Your task to perform on an android device: turn off data saver in the chrome app Image 0: 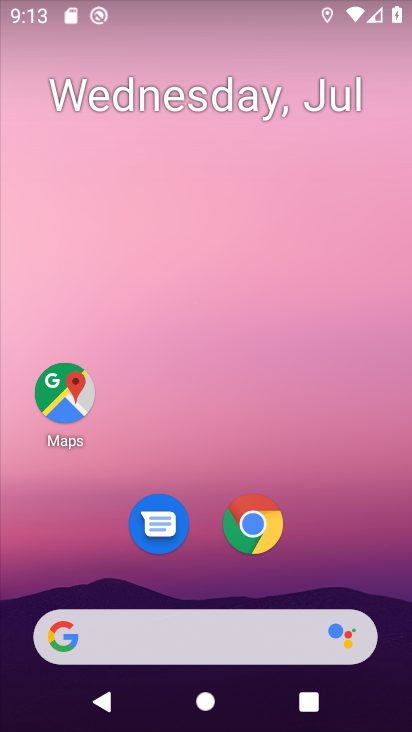
Step 0: click (252, 514)
Your task to perform on an android device: turn off data saver in the chrome app Image 1: 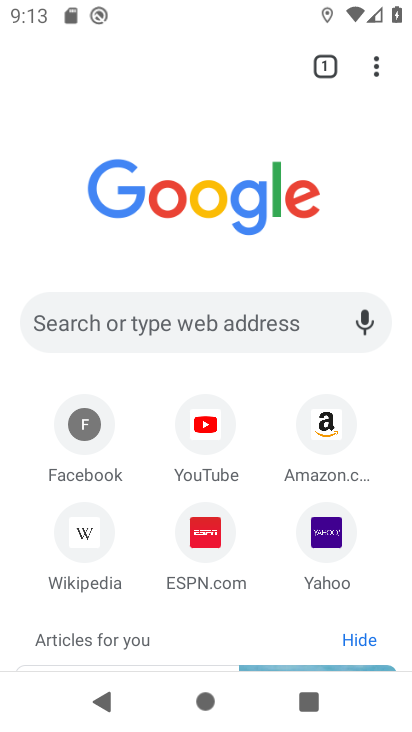
Step 1: click (377, 72)
Your task to perform on an android device: turn off data saver in the chrome app Image 2: 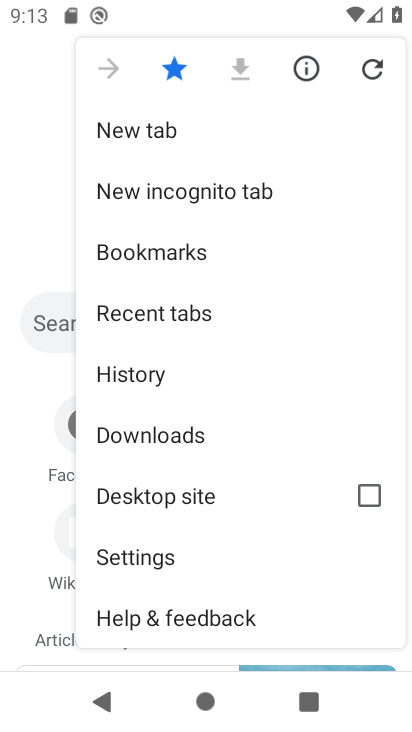
Step 2: drag from (251, 551) to (266, 329)
Your task to perform on an android device: turn off data saver in the chrome app Image 3: 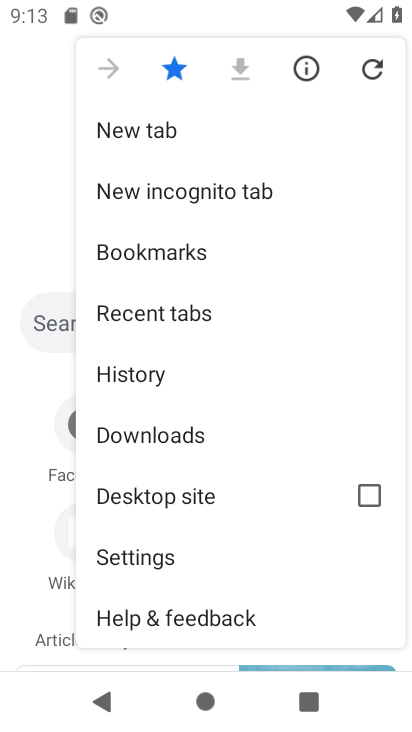
Step 3: click (167, 548)
Your task to perform on an android device: turn off data saver in the chrome app Image 4: 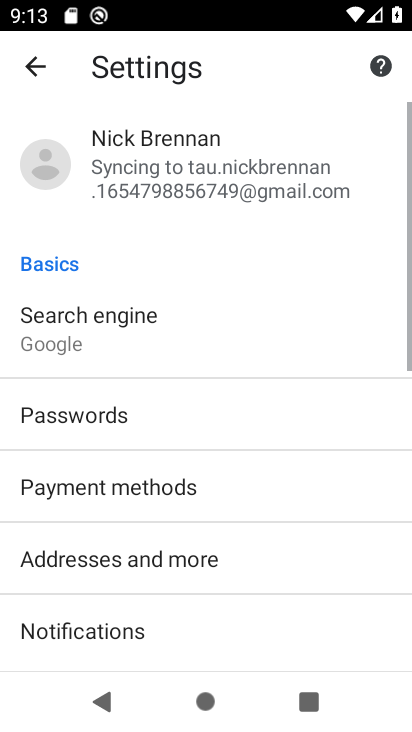
Step 4: drag from (252, 503) to (313, 15)
Your task to perform on an android device: turn off data saver in the chrome app Image 5: 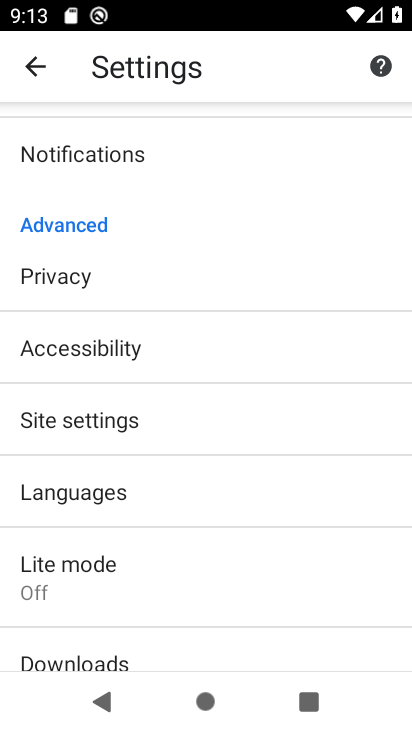
Step 5: click (87, 573)
Your task to perform on an android device: turn off data saver in the chrome app Image 6: 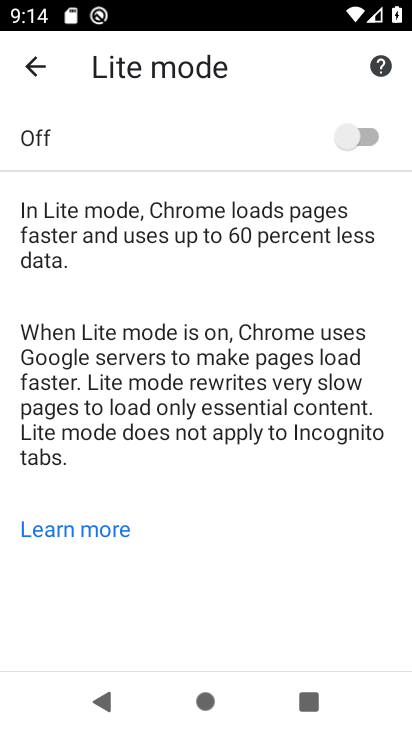
Step 6: task complete